Your task to perform on an android device: Go to eBay Image 0: 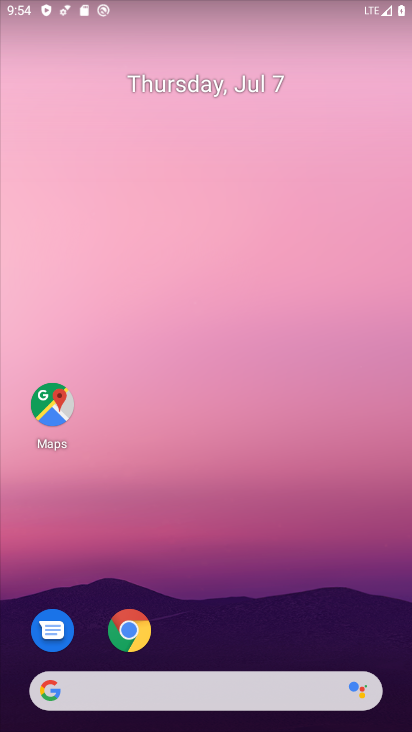
Step 0: press home button
Your task to perform on an android device: Go to eBay Image 1: 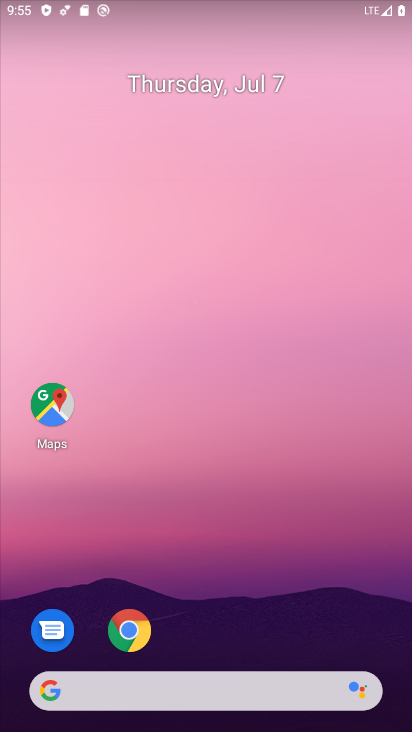
Step 1: drag from (208, 649) to (249, 1)
Your task to perform on an android device: Go to eBay Image 2: 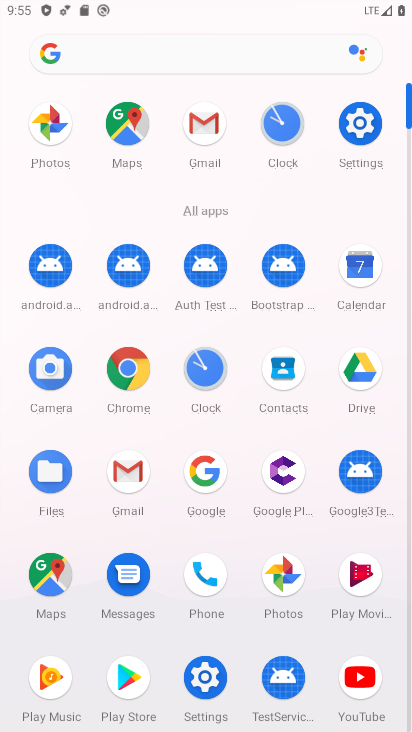
Step 2: click (126, 366)
Your task to perform on an android device: Go to eBay Image 3: 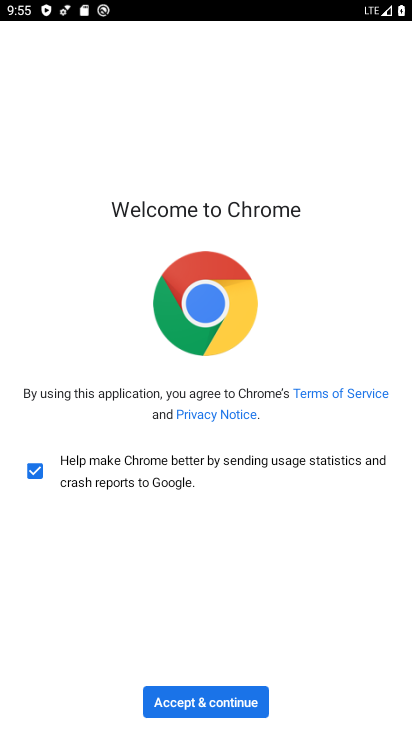
Step 3: click (209, 697)
Your task to perform on an android device: Go to eBay Image 4: 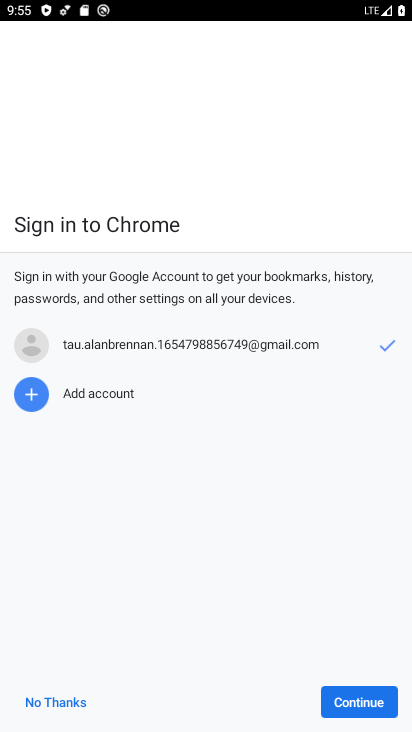
Step 4: click (352, 697)
Your task to perform on an android device: Go to eBay Image 5: 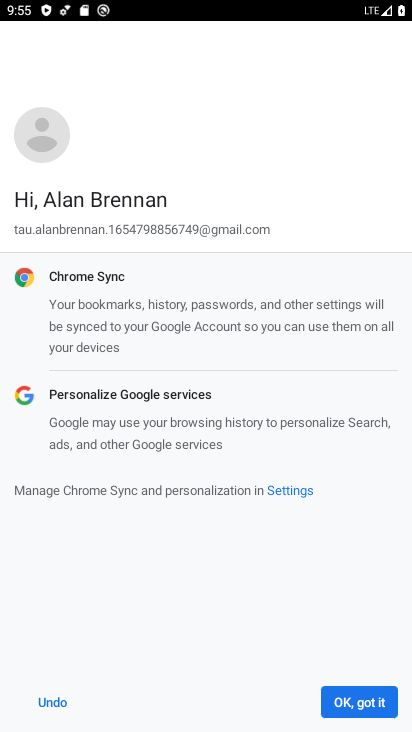
Step 5: click (369, 703)
Your task to perform on an android device: Go to eBay Image 6: 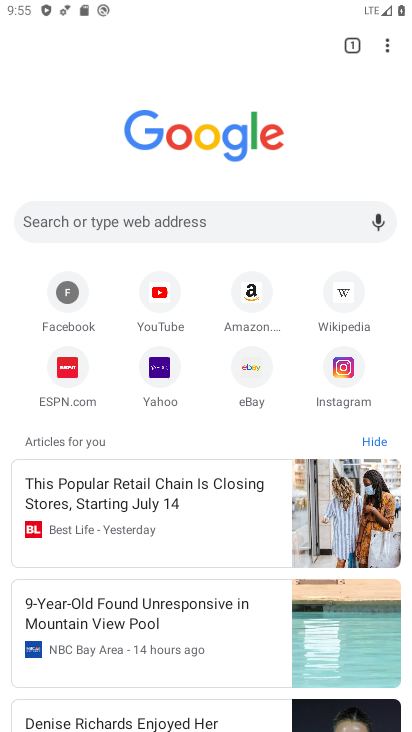
Step 6: click (252, 370)
Your task to perform on an android device: Go to eBay Image 7: 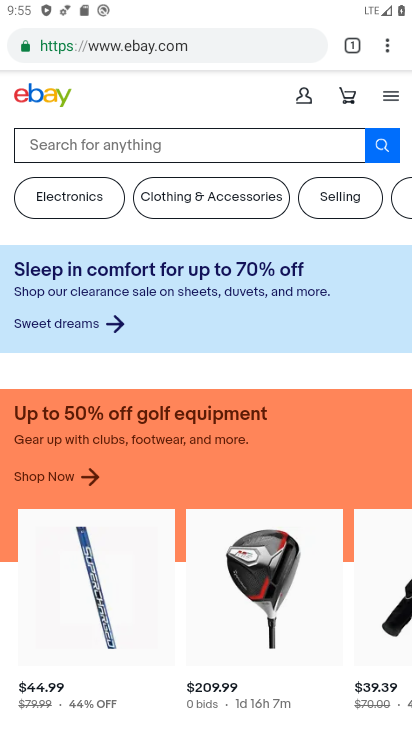
Step 7: drag from (179, 642) to (226, 198)
Your task to perform on an android device: Go to eBay Image 8: 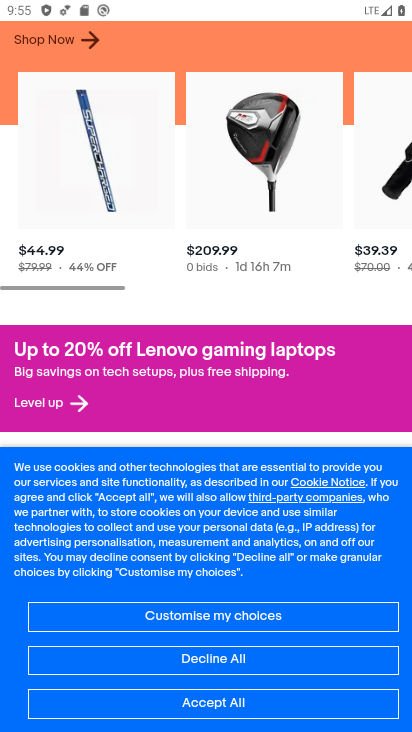
Step 8: click (240, 704)
Your task to perform on an android device: Go to eBay Image 9: 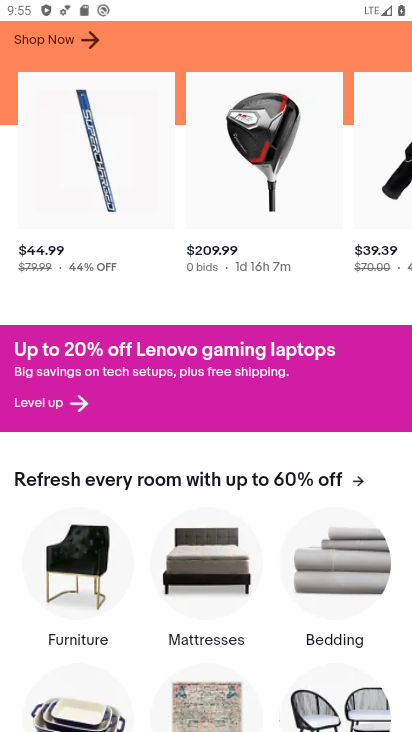
Step 9: task complete